Your task to perform on an android device: all mails in gmail Image 0: 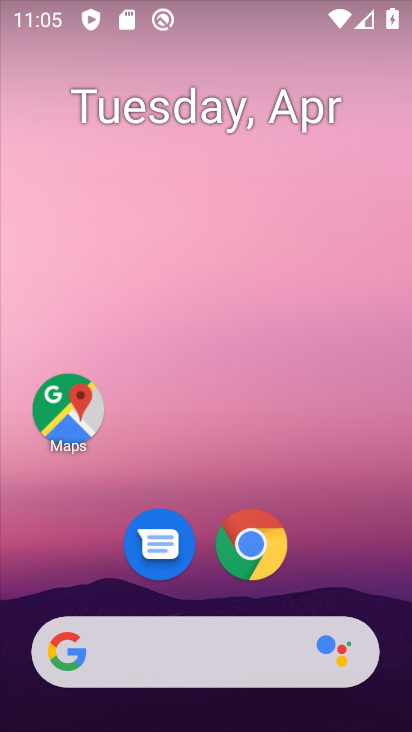
Step 0: drag from (362, 536) to (331, 123)
Your task to perform on an android device: all mails in gmail Image 1: 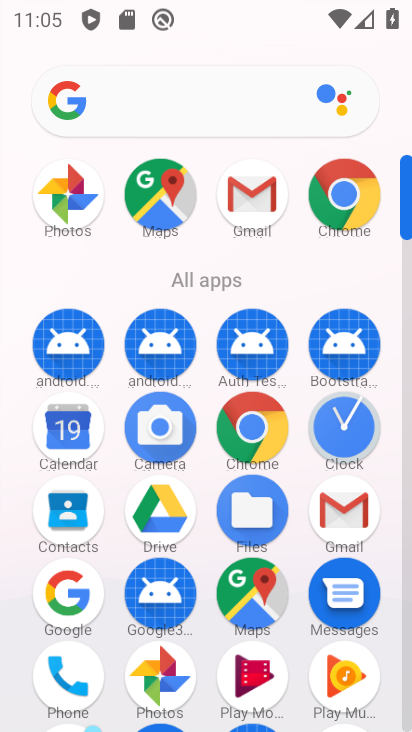
Step 1: click (326, 525)
Your task to perform on an android device: all mails in gmail Image 2: 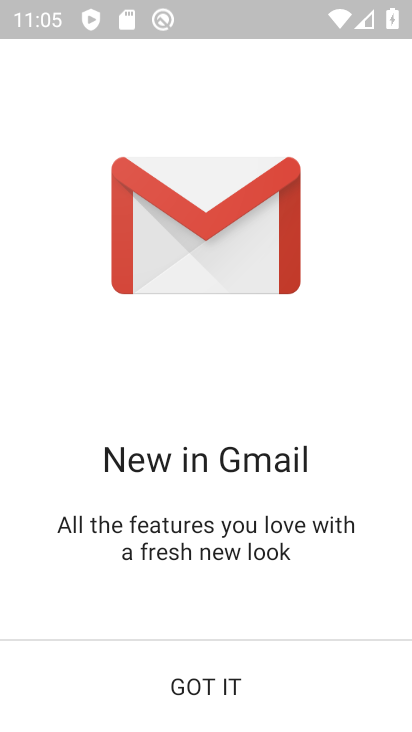
Step 2: click (223, 693)
Your task to perform on an android device: all mails in gmail Image 3: 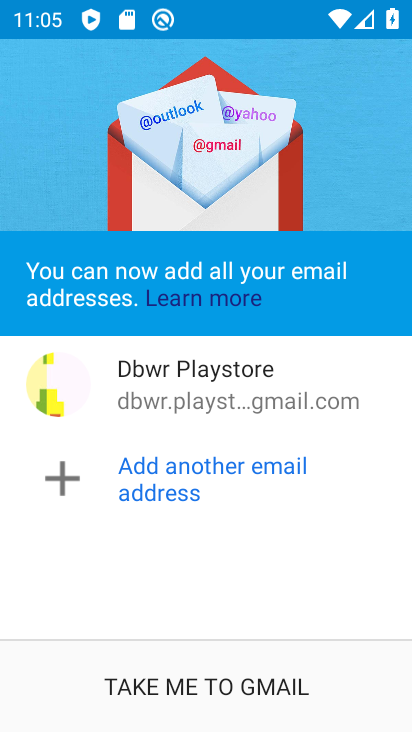
Step 3: click (222, 684)
Your task to perform on an android device: all mails in gmail Image 4: 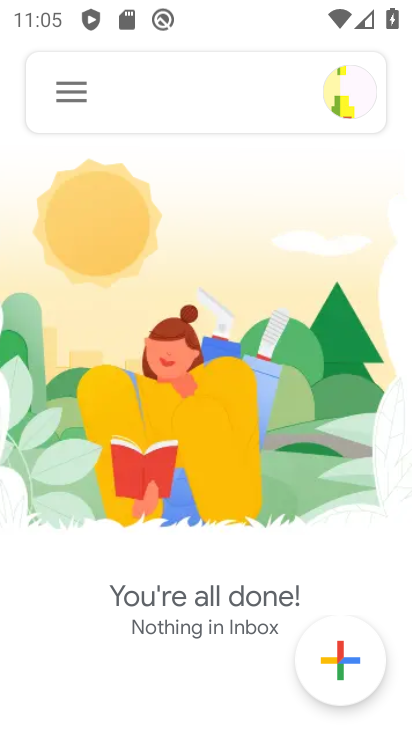
Step 4: click (66, 88)
Your task to perform on an android device: all mails in gmail Image 5: 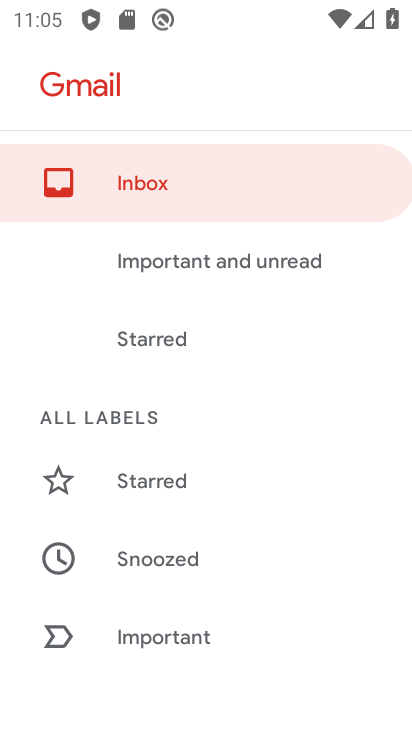
Step 5: drag from (278, 644) to (265, 248)
Your task to perform on an android device: all mails in gmail Image 6: 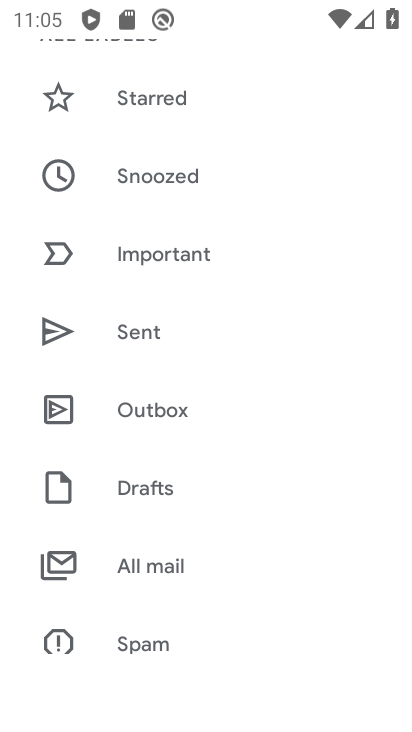
Step 6: click (160, 565)
Your task to perform on an android device: all mails in gmail Image 7: 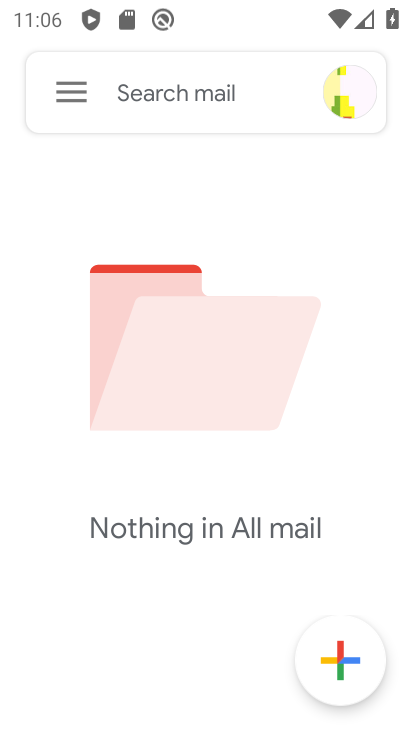
Step 7: task complete